Your task to perform on an android device: Open the calendar and show me this week's events? Image 0: 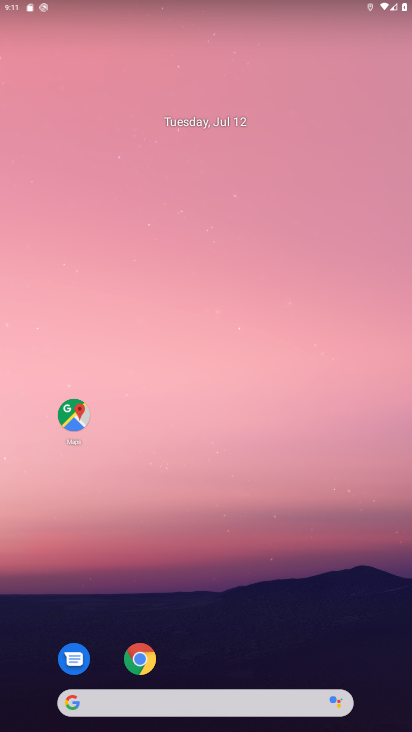
Step 0: drag from (171, 606) to (200, 126)
Your task to perform on an android device: Open the calendar and show me this week's events? Image 1: 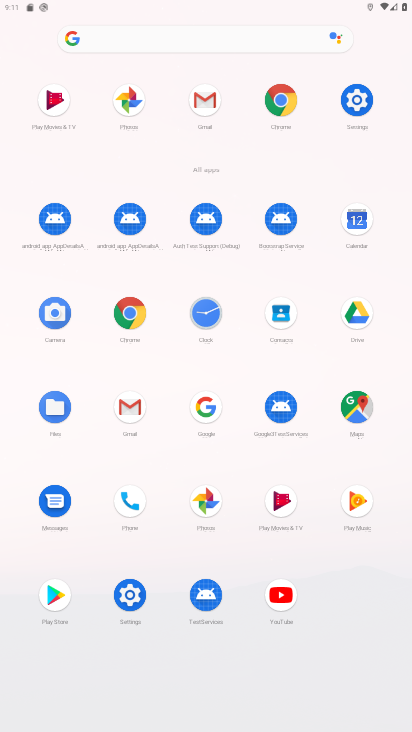
Step 1: click (369, 218)
Your task to perform on an android device: Open the calendar and show me this week's events? Image 2: 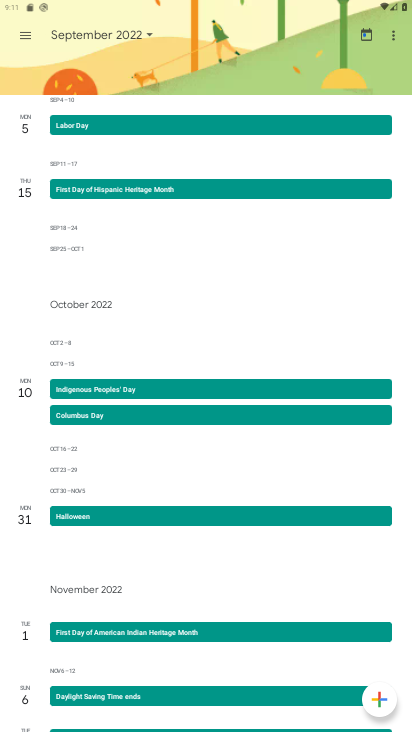
Step 2: click (105, 32)
Your task to perform on an android device: Open the calendar and show me this week's events? Image 3: 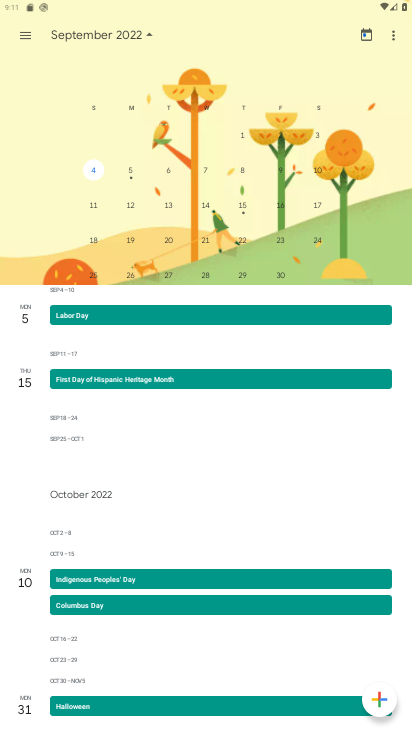
Step 3: drag from (66, 178) to (409, 138)
Your task to perform on an android device: Open the calendar and show me this week's events? Image 4: 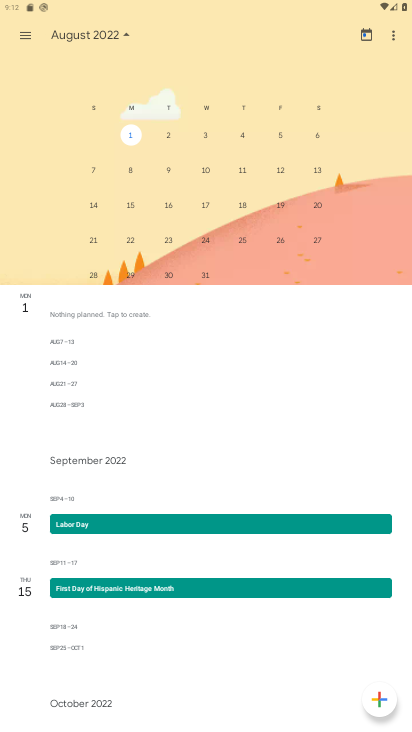
Step 4: drag from (40, 157) to (378, 155)
Your task to perform on an android device: Open the calendar and show me this week's events? Image 5: 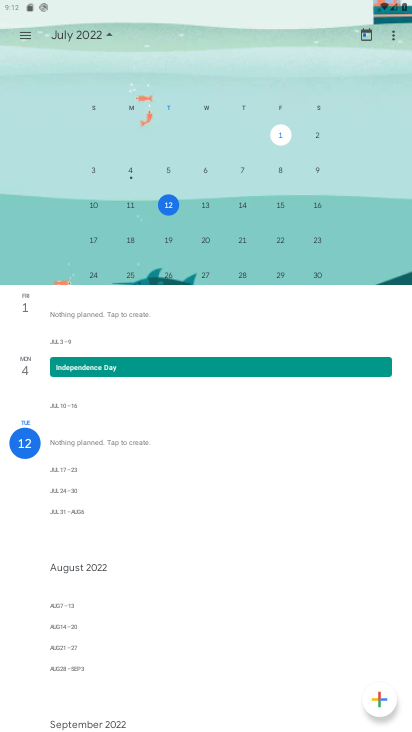
Step 5: click (167, 202)
Your task to perform on an android device: Open the calendar and show me this week's events? Image 6: 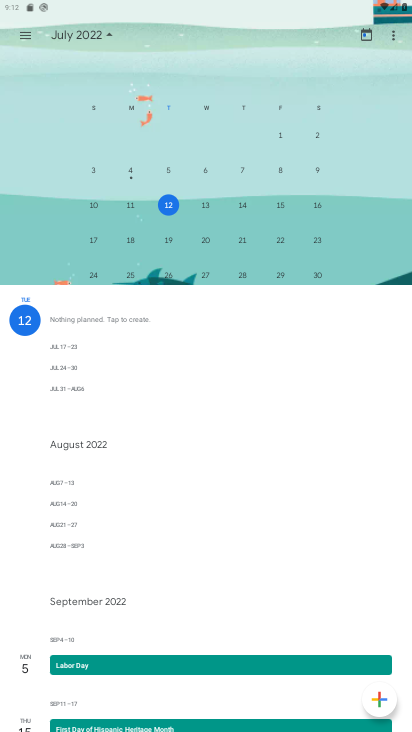
Step 6: task complete